Your task to perform on an android device: Search for a runner rug on Crate & Barrel Image 0: 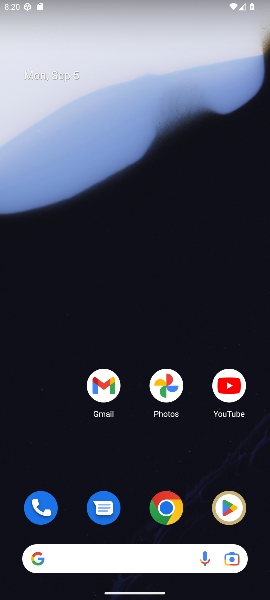
Step 0: click (168, 507)
Your task to perform on an android device: Search for a runner rug on Crate & Barrel Image 1: 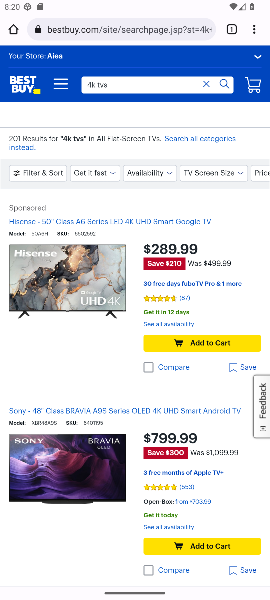
Step 1: click (92, 31)
Your task to perform on an android device: Search for a runner rug on Crate & Barrel Image 2: 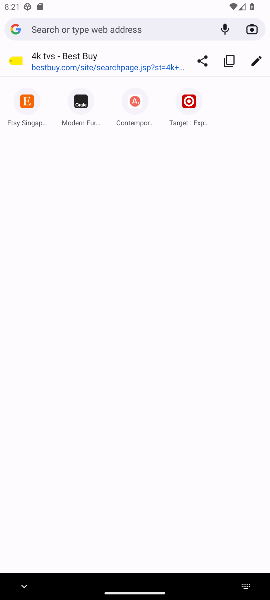
Step 2: type "Crate & Barrel"
Your task to perform on an android device: Search for a runner rug on Crate & Barrel Image 3: 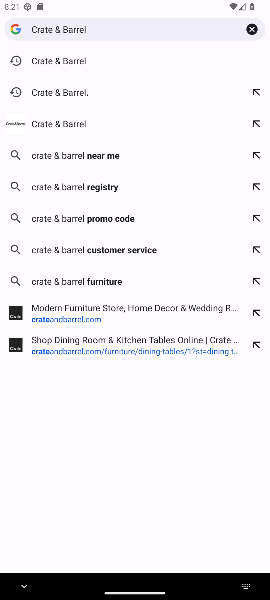
Step 3: click (77, 71)
Your task to perform on an android device: Search for a runner rug on Crate & Barrel Image 4: 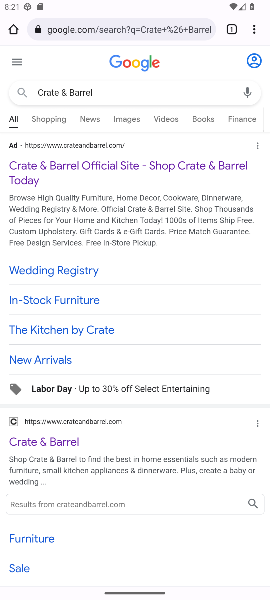
Step 4: click (57, 444)
Your task to perform on an android device: Search for a runner rug on Crate & Barrel Image 5: 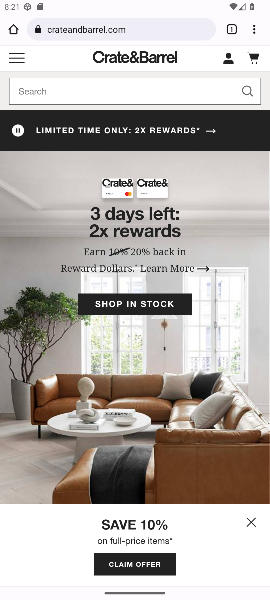
Step 5: click (126, 85)
Your task to perform on an android device: Search for a runner rug on Crate & Barrel Image 6: 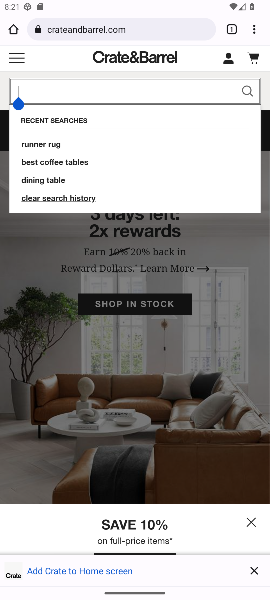
Step 6: type "runner rug"
Your task to perform on an android device: Search for a runner rug on Crate & Barrel Image 7: 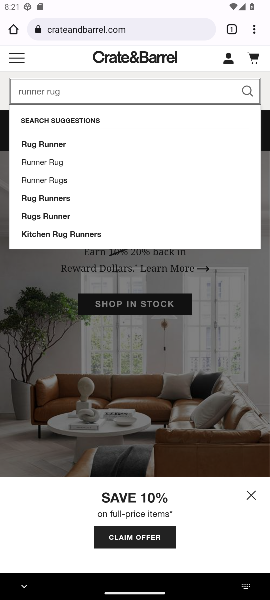
Step 7: click (43, 166)
Your task to perform on an android device: Search for a runner rug on Crate & Barrel Image 8: 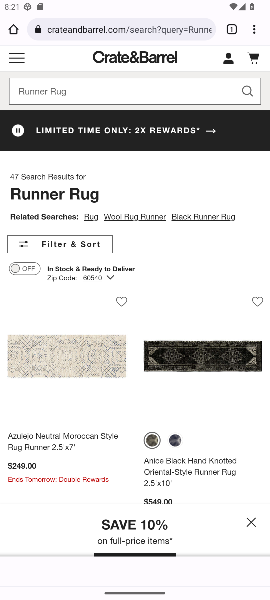
Step 8: task complete